Your task to perform on an android device: toggle show notifications on the lock screen Image 0: 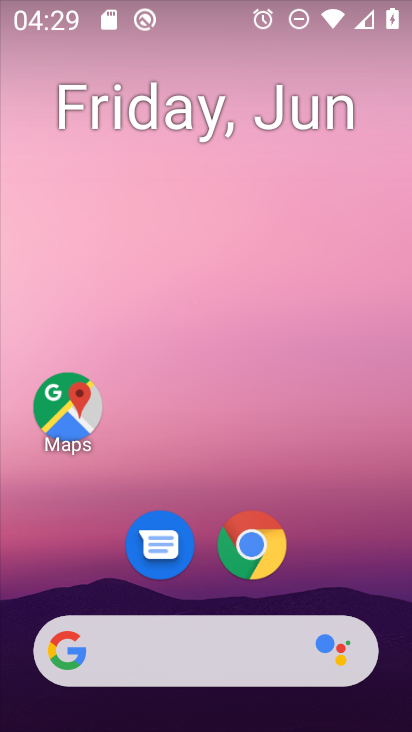
Step 0: drag from (321, 586) to (324, 60)
Your task to perform on an android device: toggle show notifications on the lock screen Image 1: 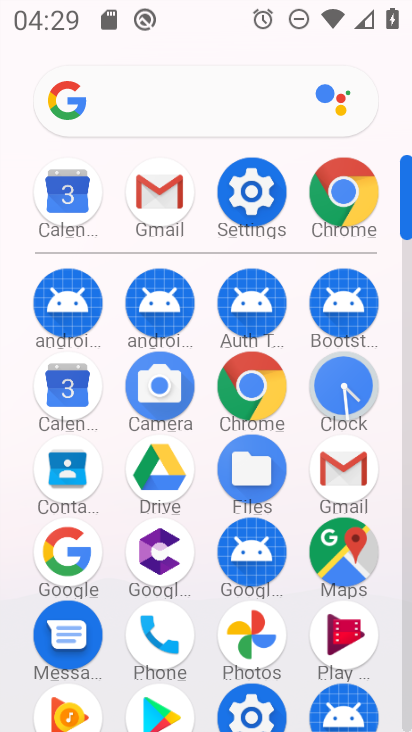
Step 1: click (245, 191)
Your task to perform on an android device: toggle show notifications on the lock screen Image 2: 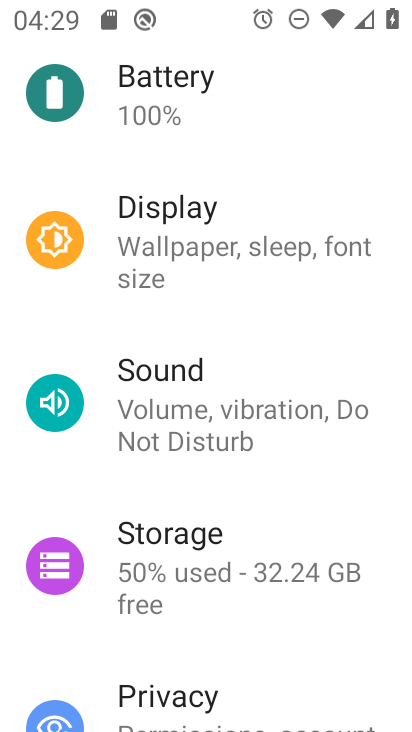
Step 2: drag from (288, 222) to (285, 688)
Your task to perform on an android device: toggle show notifications on the lock screen Image 3: 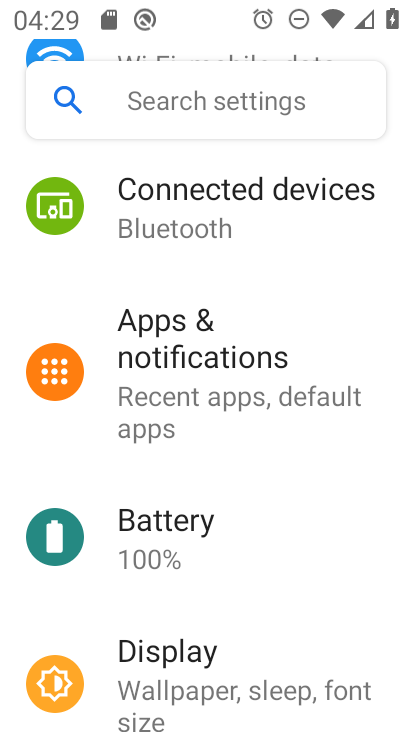
Step 3: click (248, 375)
Your task to perform on an android device: toggle show notifications on the lock screen Image 4: 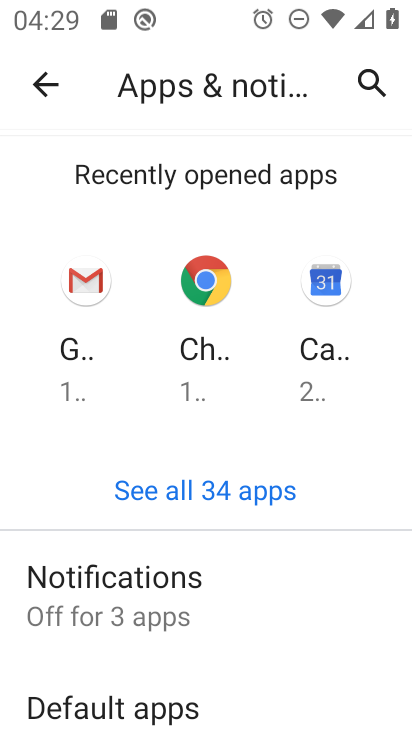
Step 4: click (174, 589)
Your task to perform on an android device: toggle show notifications on the lock screen Image 5: 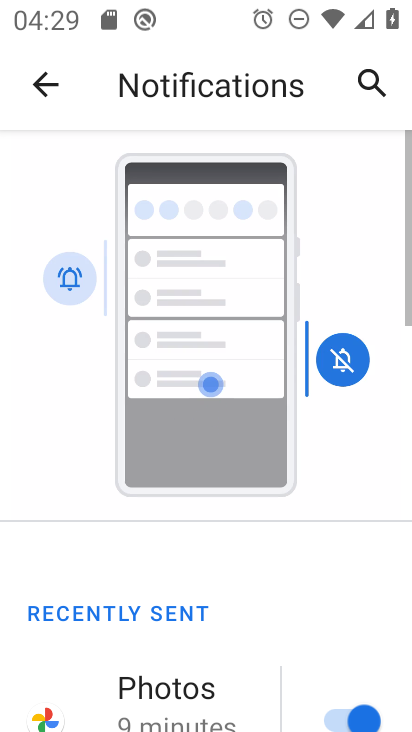
Step 5: drag from (189, 648) to (238, 101)
Your task to perform on an android device: toggle show notifications on the lock screen Image 6: 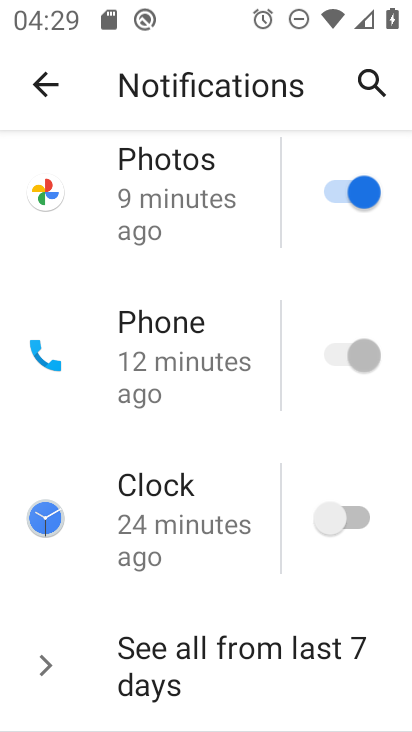
Step 6: drag from (192, 658) to (201, 129)
Your task to perform on an android device: toggle show notifications on the lock screen Image 7: 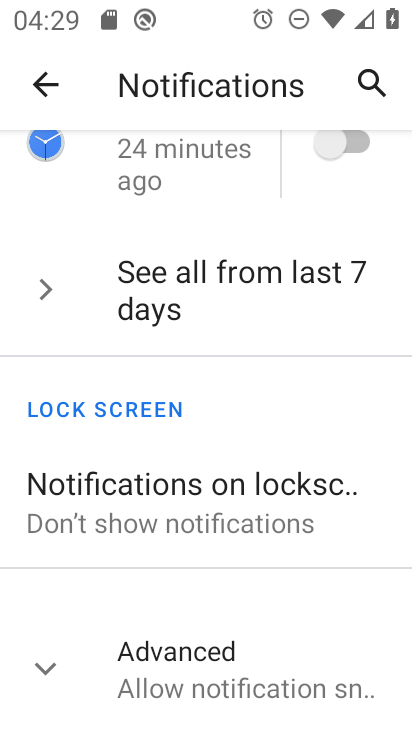
Step 7: click (193, 497)
Your task to perform on an android device: toggle show notifications on the lock screen Image 8: 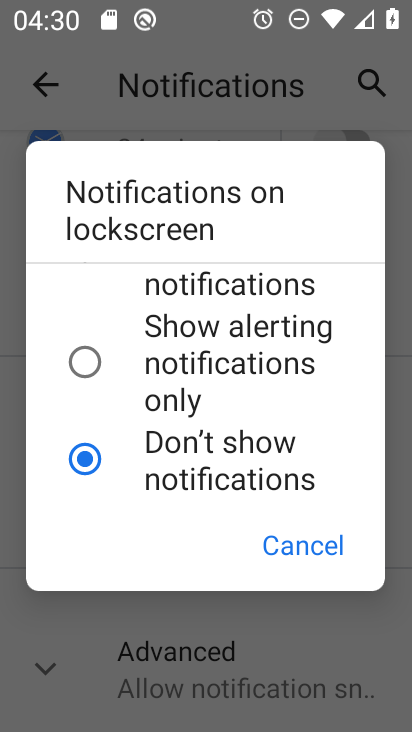
Step 8: click (189, 285)
Your task to perform on an android device: toggle show notifications on the lock screen Image 9: 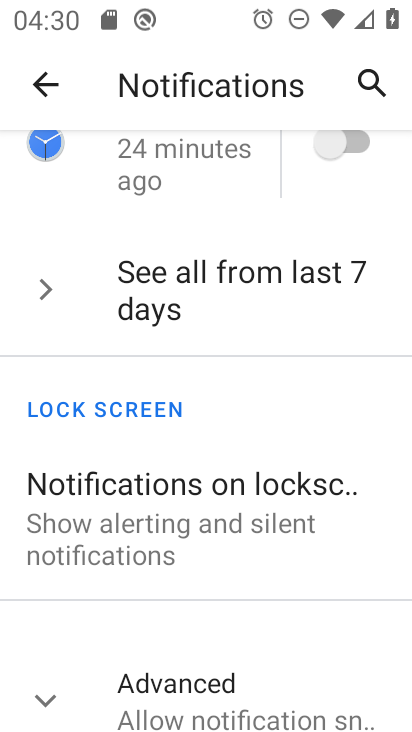
Step 9: task complete